Your task to perform on an android device: What's the weather today? Image 0: 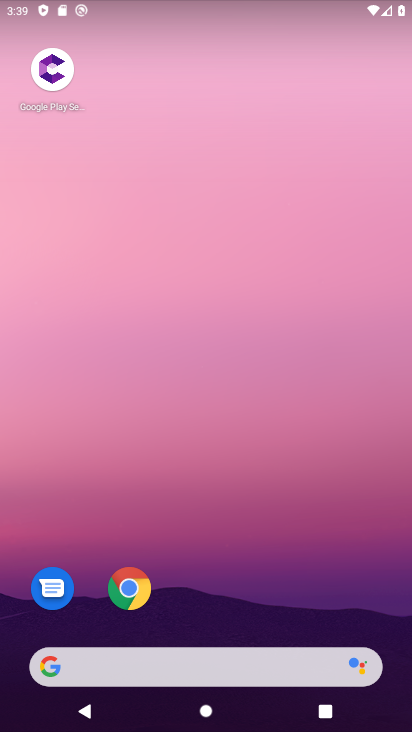
Step 0: click (142, 592)
Your task to perform on an android device: What's the weather today? Image 1: 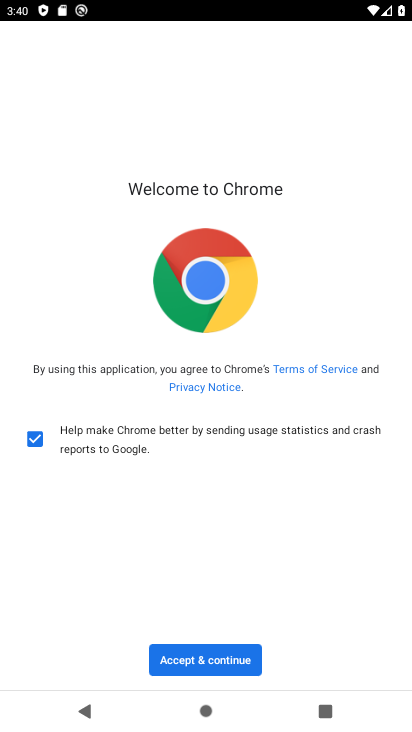
Step 1: click (229, 666)
Your task to perform on an android device: What's the weather today? Image 2: 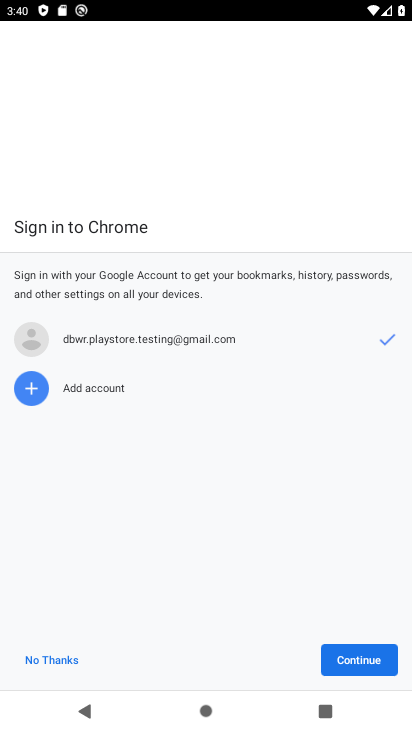
Step 2: click (351, 666)
Your task to perform on an android device: What's the weather today? Image 3: 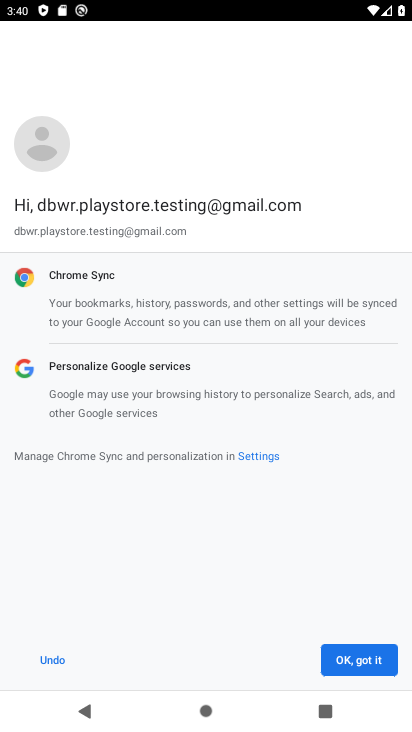
Step 3: click (364, 664)
Your task to perform on an android device: What's the weather today? Image 4: 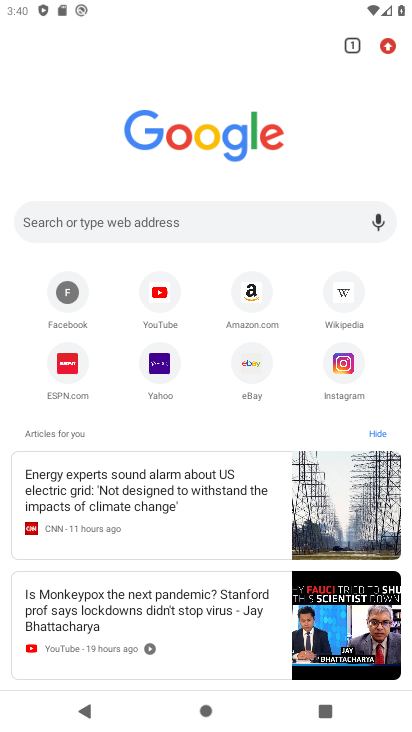
Step 4: click (197, 213)
Your task to perform on an android device: What's the weather today? Image 5: 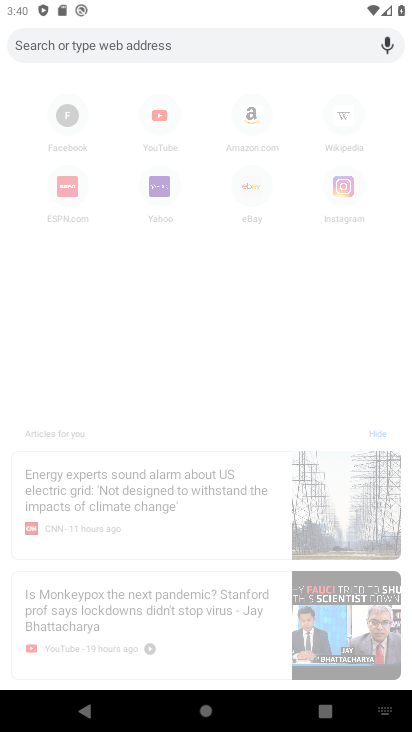
Step 5: type "What's the weather today?"
Your task to perform on an android device: What's the weather today? Image 6: 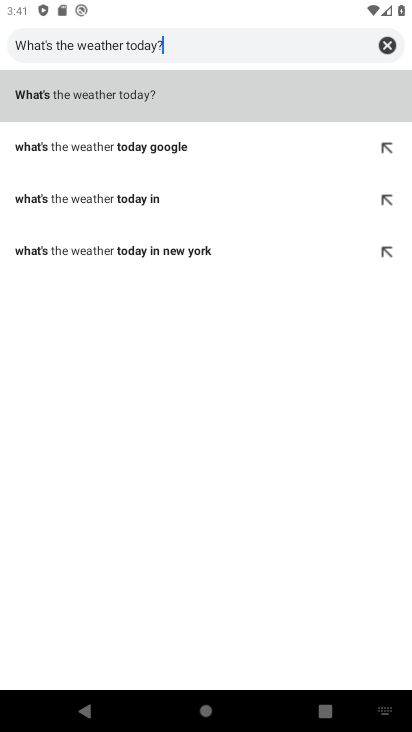
Step 6: click (141, 92)
Your task to perform on an android device: What's the weather today? Image 7: 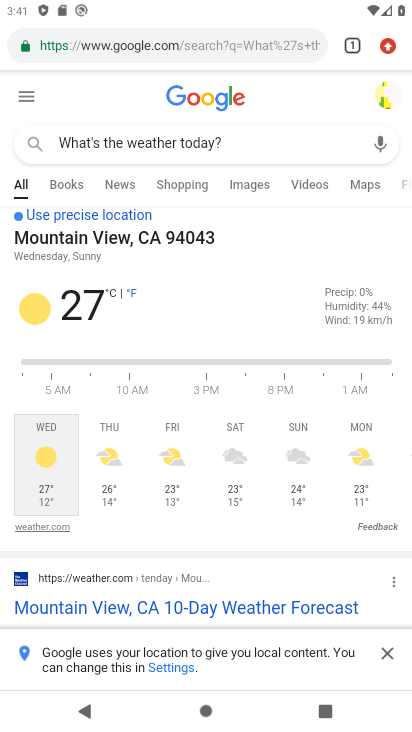
Step 7: task complete